Your task to perform on an android device: turn off data saver in the chrome app Image 0: 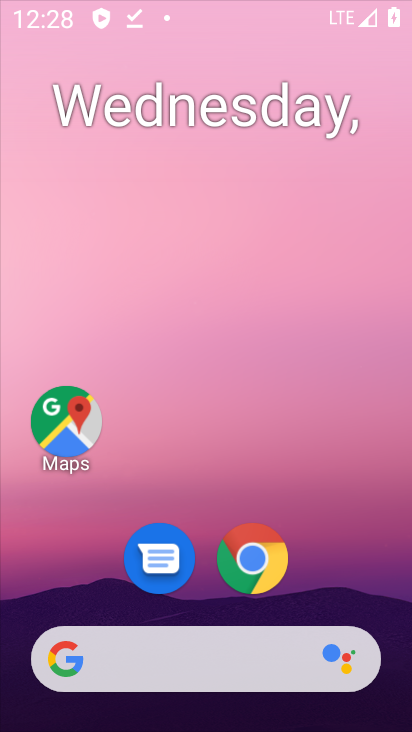
Step 0: drag from (275, 569) to (190, 1)
Your task to perform on an android device: turn off data saver in the chrome app Image 1: 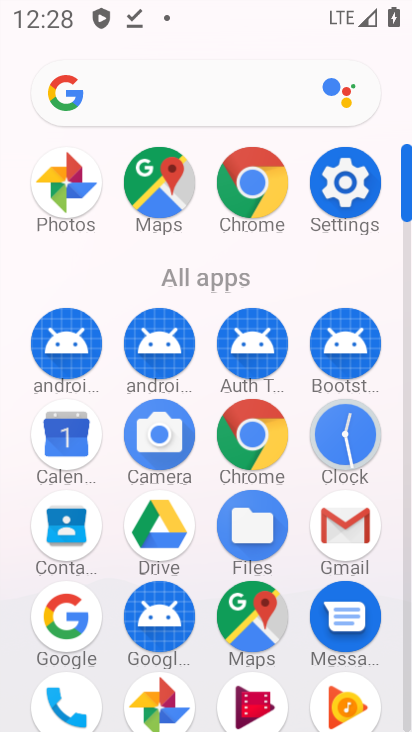
Step 1: click (237, 194)
Your task to perform on an android device: turn off data saver in the chrome app Image 2: 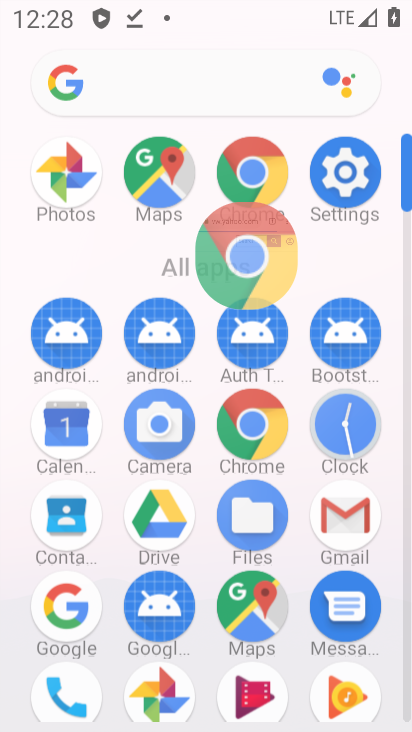
Step 2: click (248, 184)
Your task to perform on an android device: turn off data saver in the chrome app Image 3: 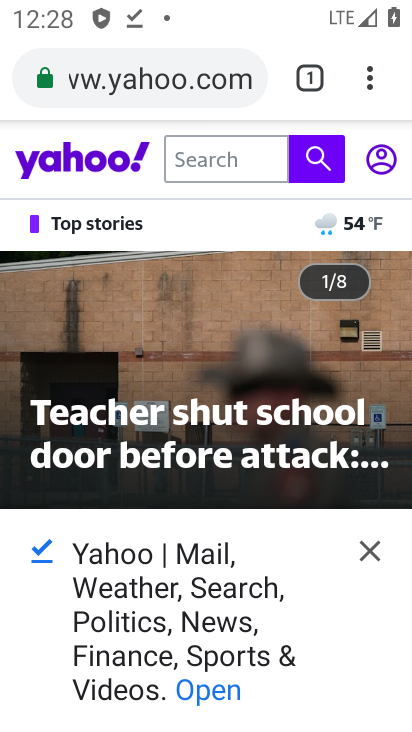
Step 3: press back button
Your task to perform on an android device: turn off data saver in the chrome app Image 4: 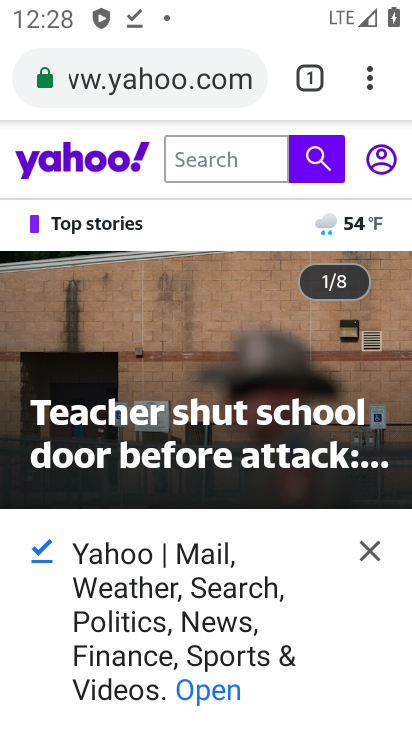
Step 4: press back button
Your task to perform on an android device: turn off data saver in the chrome app Image 5: 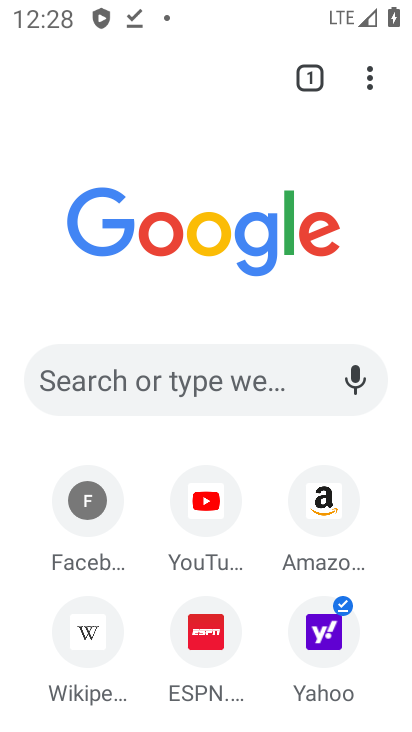
Step 5: press back button
Your task to perform on an android device: turn off data saver in the chrome app Image 6: 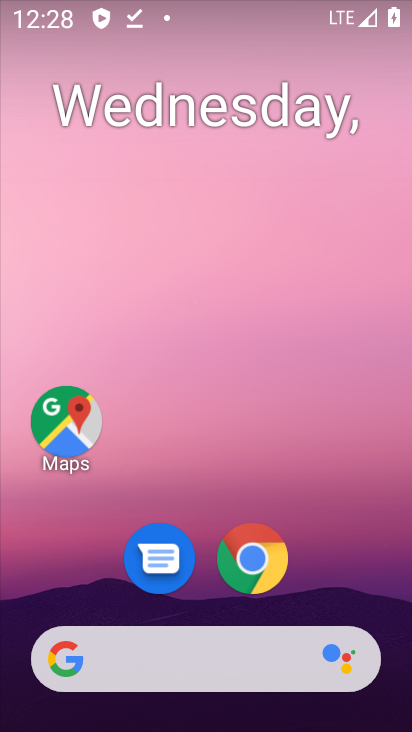
Step 6: drag from (276, 584) to (408, 490)
Your task to perform on an android device: turn off data saver in the chrome app Image 7: 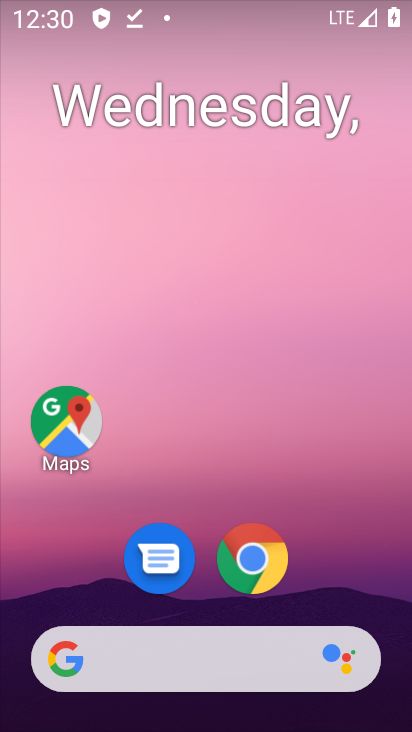
Step 7: click (248, 275)
Your task to perform on an android device: turn off data saver in the chrome app Image 8: 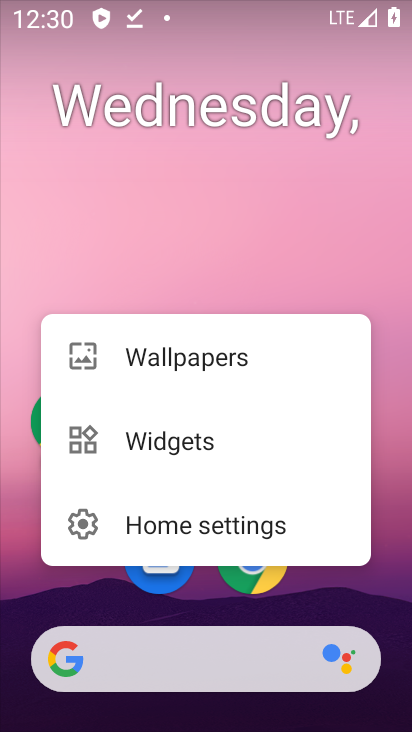
Step 8: drag from (172, 177) to (217, 235)
Your task to perform on an android device: turn off data saver in the chrome app Image 9: 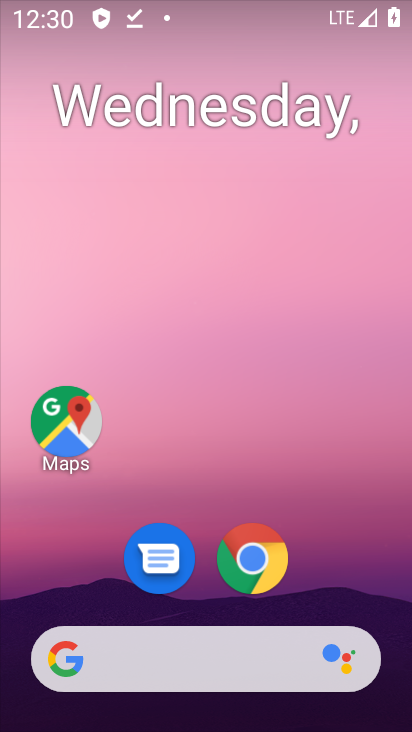
Step 9: click (222, 245)
Your task to perform on an android device: turn off data saver in the chrome app Image 10: 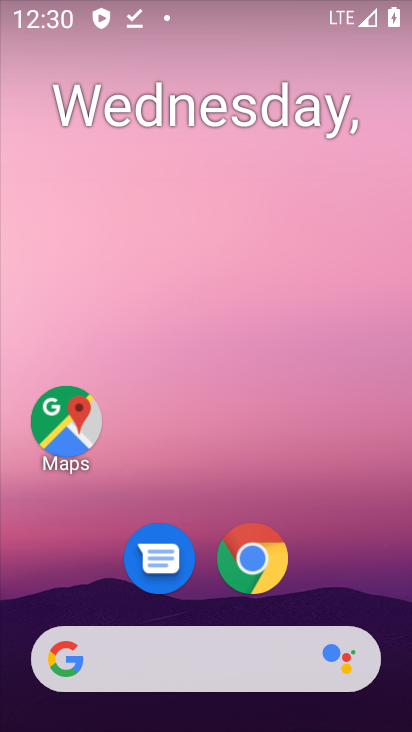
Step 10: drag from (204, 548) to (167, 19)
Your task to perform on an android device: turn off data saver in the chrome app Image 11: 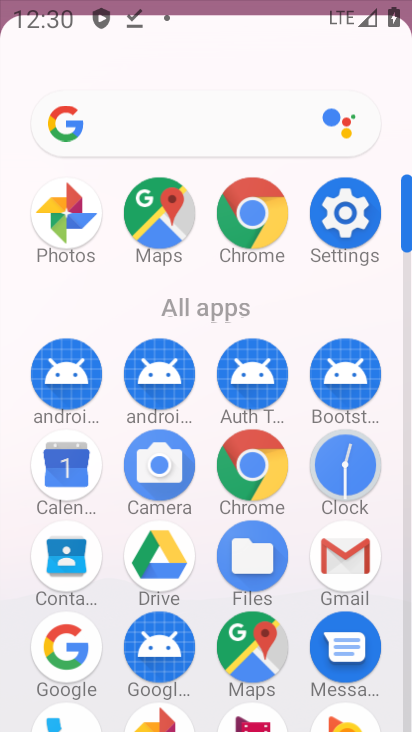
Step 11: drag from (267, 384) to (222, 120)
Your task to perform on an android device: turn off data saver in the chrome app Image 12: 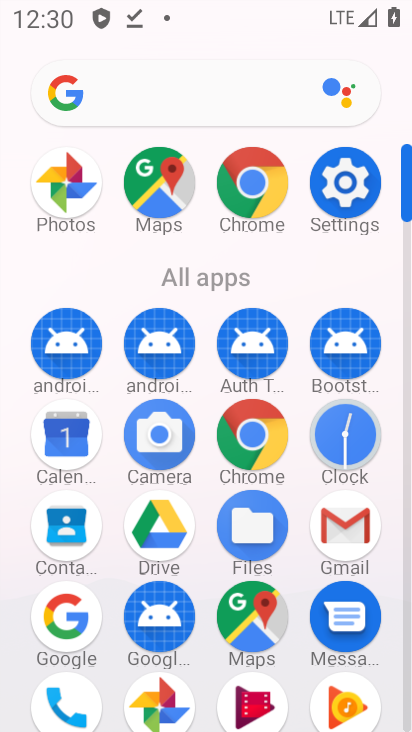
Step 12: click (258, 178)
Your task to perform on an android device: turn off data saver in the chrome app Image 13: 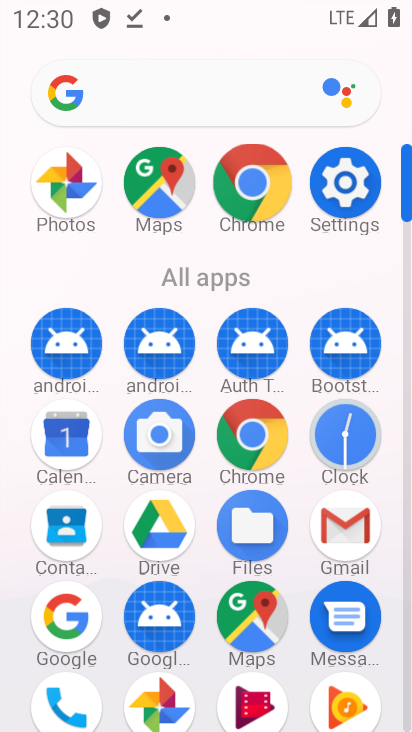
Step 13: click (259, 190)
Your task to perform on an android device: turn off data saver in the chrome app Image 14: 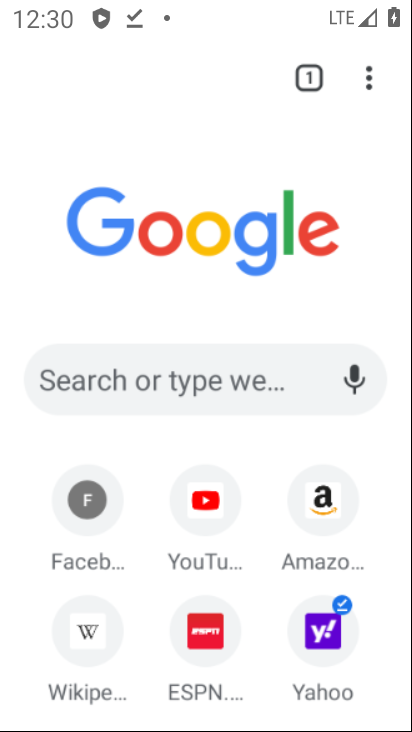
Step 14: click (255, 185)
Your task to perform on an android device: turn off data saver in the chrome app Image 15: 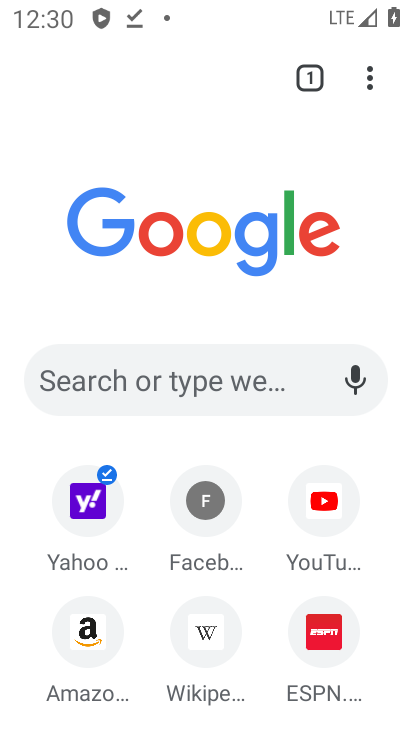
Step 15: drag from (368, 83) to (74, 615)
Your task to perform on an android device: turn off data saver in the chrome app Image 16: 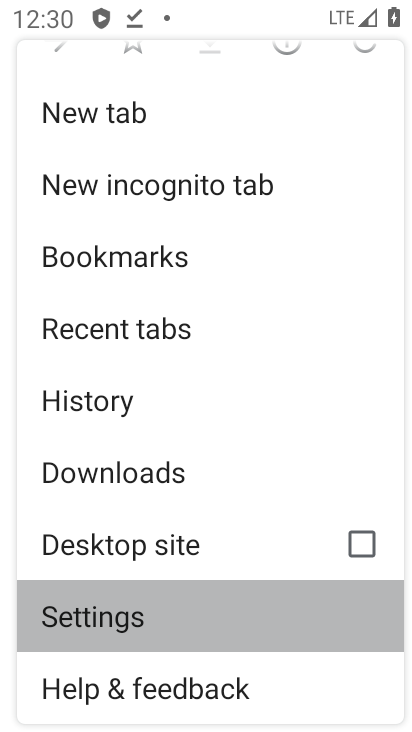
Step 16: click (91, 607)
Your task to perform on an android device: turn off data saver in the chrome app Image 17: 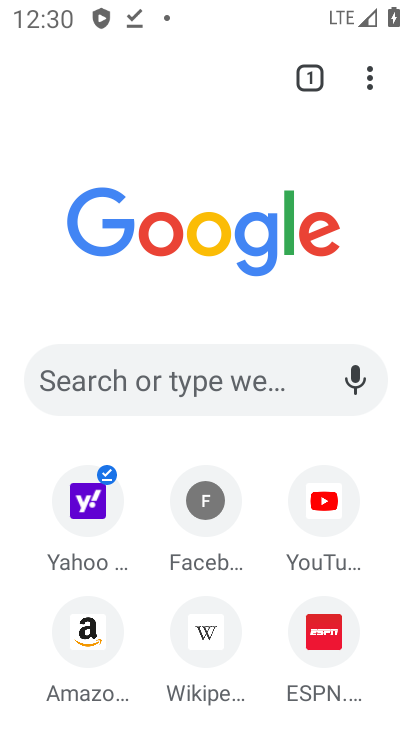
Step 17: click (112, 608)
Your task to perform on an android device: turn off data saver in the chrome app Image 18: 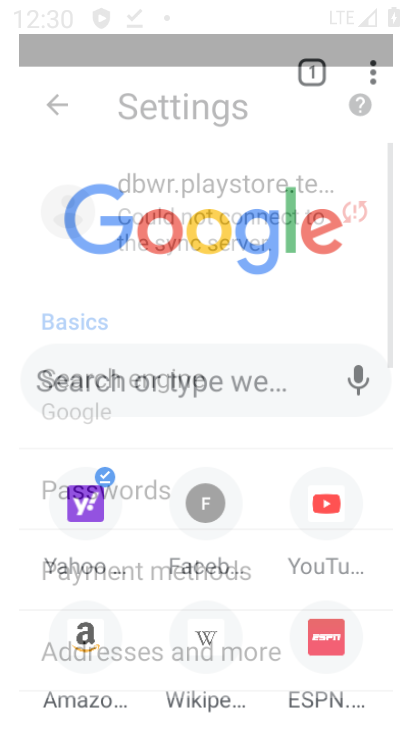
Step 18: click (132, 606)
Your task to perform on an android device: turn off data saver in the chrome app Image 19: 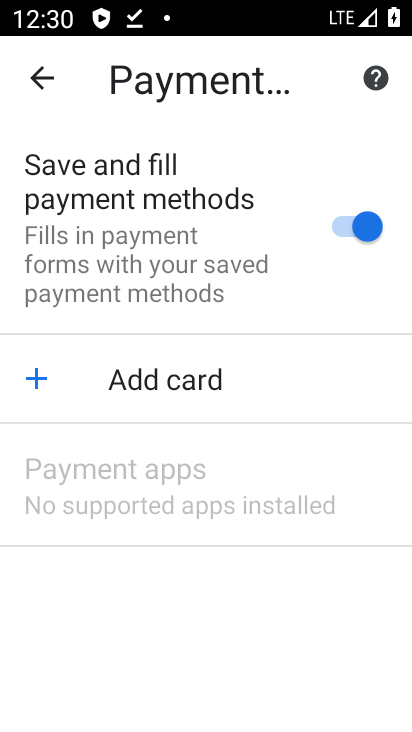
Step 19: click (45, 84)
Your task to perform on an android device: turn off data saver in the chrome app Image 20: 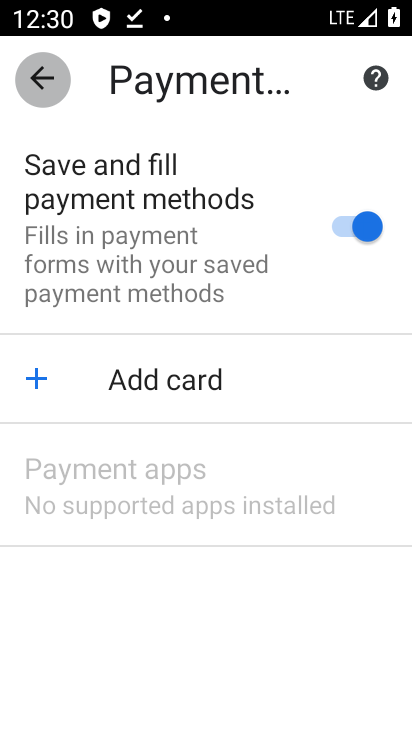
Step 20: click (45, 84)
Your task to perform on an android device: turn off data saver in the chrome app Image 21: 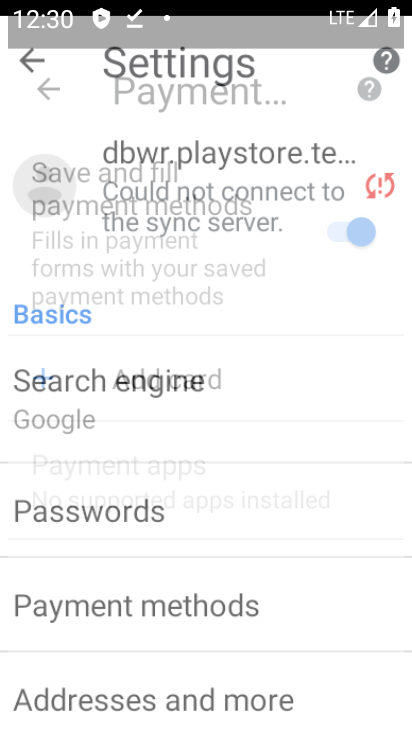
Step 21: click (42, 88)
Your task to perform on an android device: turn off data saver in the chrome app Image 22: 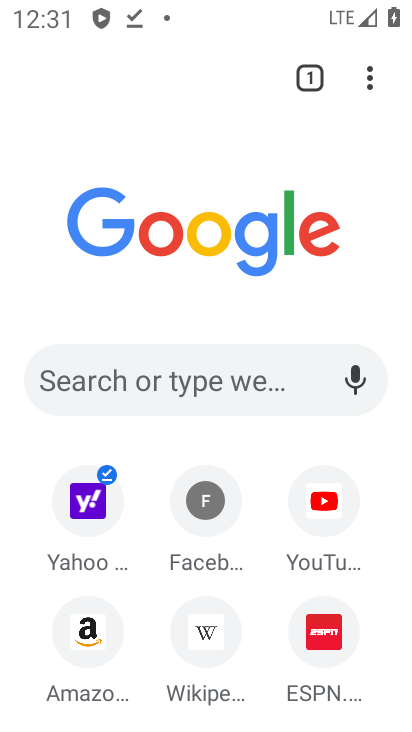
Step 22: press back button
Your task to perform on an android device: turn off data saver in the chrome app Image 23: 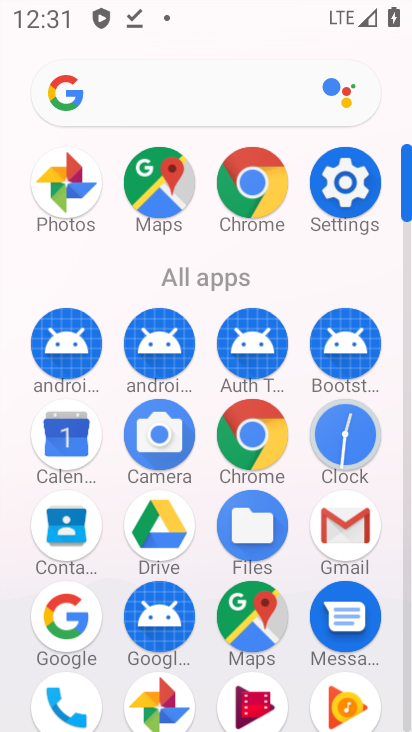
Step 23: drag from (335, 162) to (300, 262)
Your task to perform on an android device: turn off data saver in the chrome app Image 24: 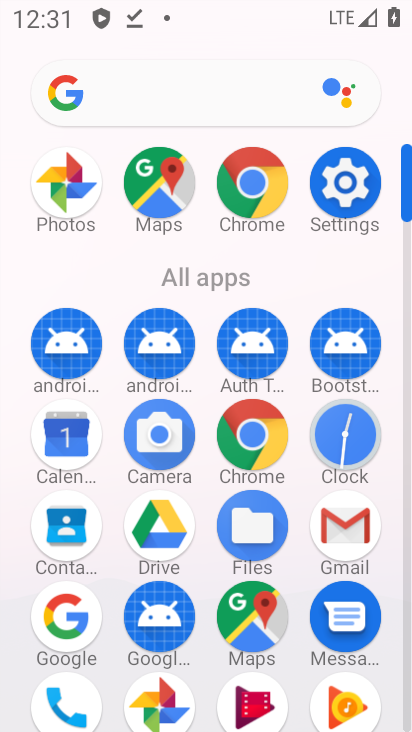
Step 24: press home button
Your task to perform on an android device: turn off data saver in the chrome app Image 25: 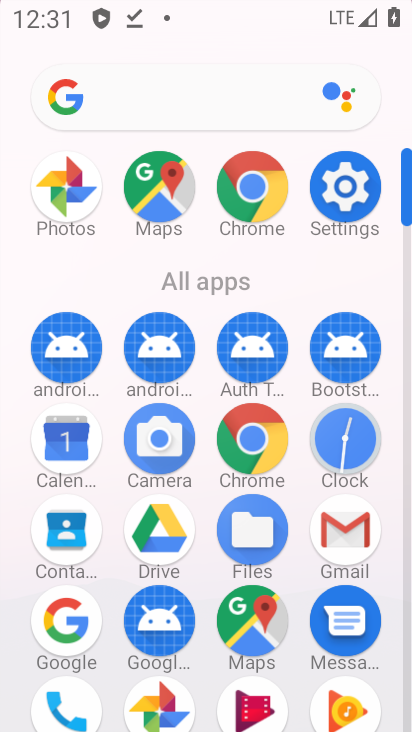
Step 25: press home button
Your task to perform on an android device: turn off data saver in the chrome app Image 26: 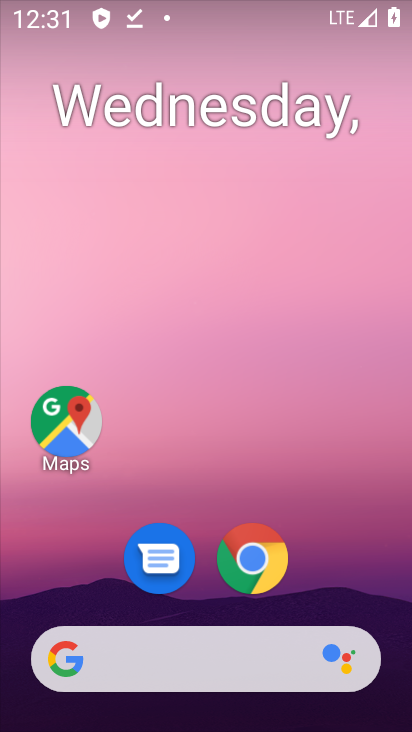
Step 26: press home button
Your task to perform on an android device: turn off data saver in the chrome app Image 27: 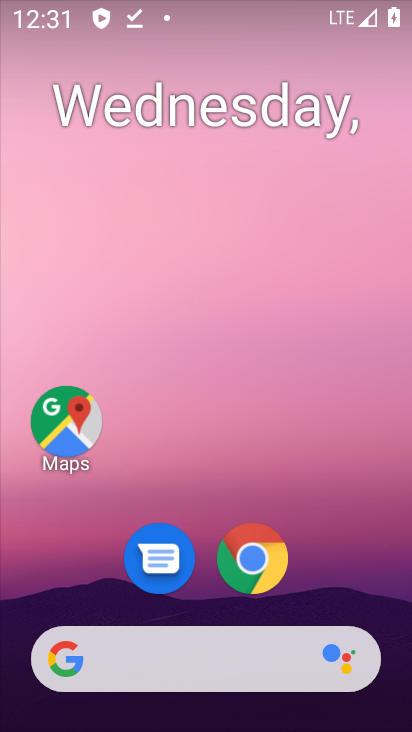
Step 27: drag from (252, 480) to (235, 308)
Your task to perform on an android device: turn off data saver in the chrome app Image 28: 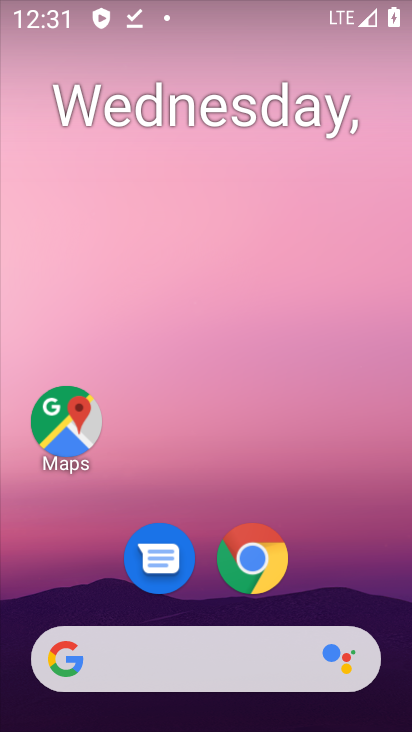
Step 28: drag from (229, 699) to (148, 214)
Your task to perform on an android device: turn off data saver in the chrome app Image 29: 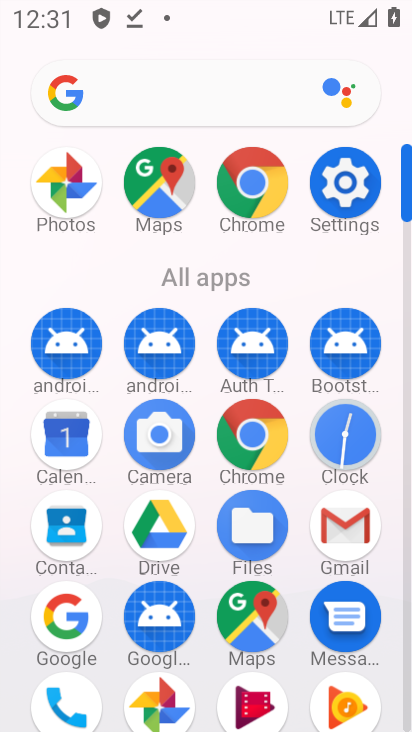
Step 29: click (260, 185)
Your task to perform on an android device: turn off data saver in the chrome app Image 30: 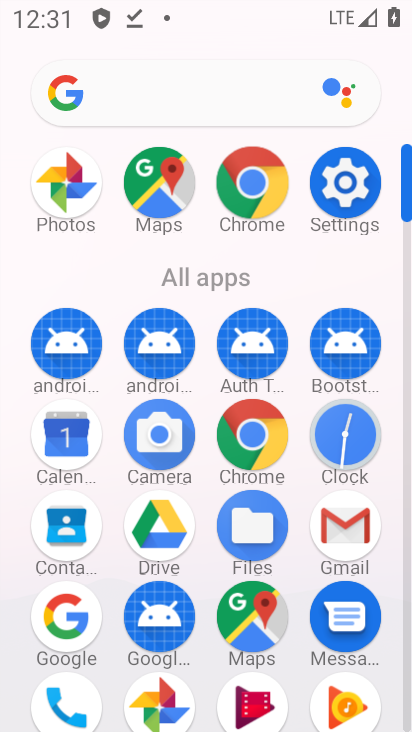
Step 30: click (261, 186)
Your task to perform on an android device: turn off data saver in the chrome app Image 31: 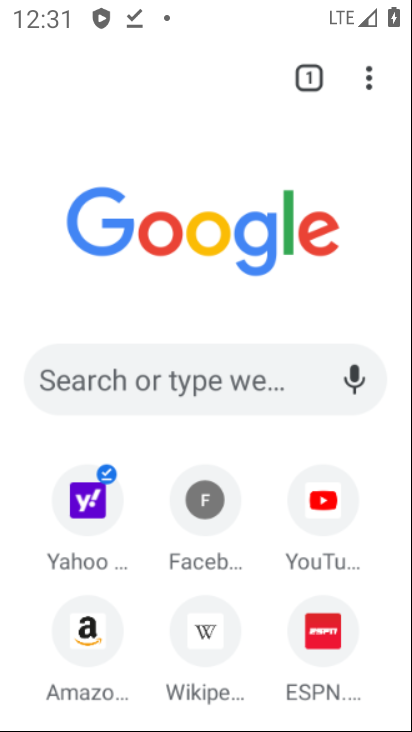
Step 31: click (262, 185)
Your task to perform on an android device: turn off data saver in the chrome app Image 32: 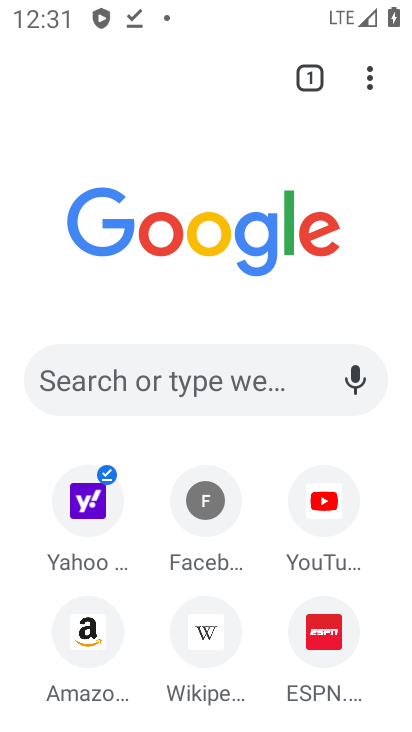
Step 32: drag from (371, 87) to (96, 608)
Your task to perform on an android device: turn off data saver in the chrome app Image 33: 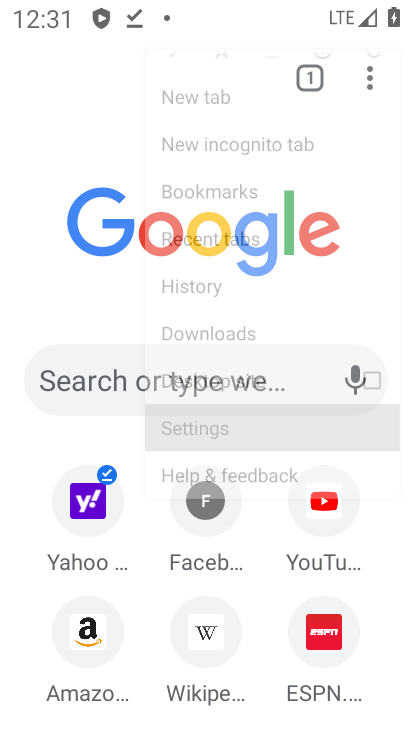
Step 33: click (95, 610)
Your task to perform on an android device: turn off data saver in the chrome app Image 34: 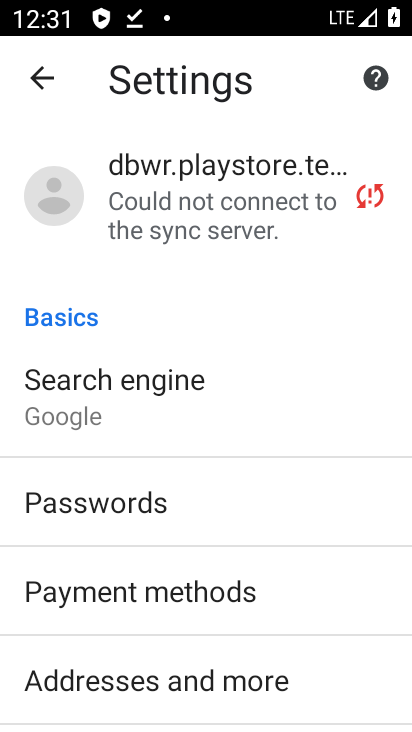
Step 34: drag from (195, 534) to (177, 166)
Your task to perform on an android device: turn off data saver in the chrome app Image 35: 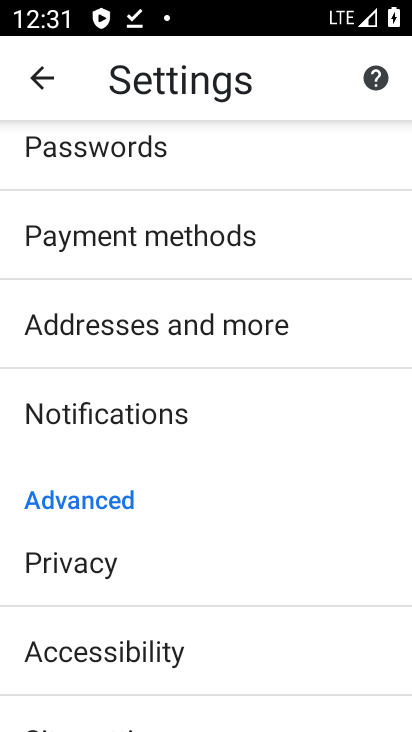
Step 35: drag from (179, 540) to (159, 119)
Your task to perform on an android device: turn off data saver in the chrome app Image 36: 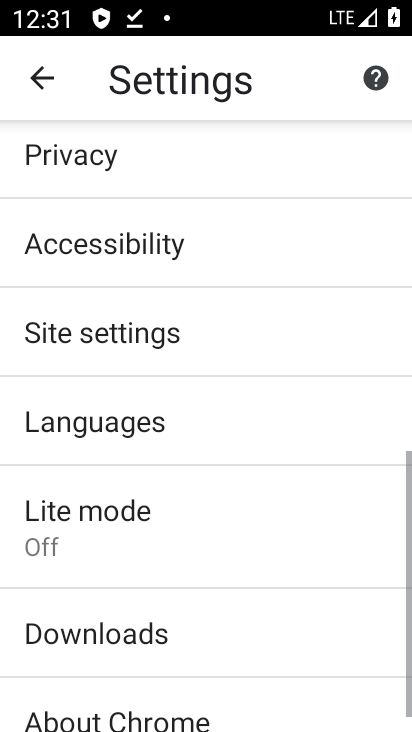
Step 36: drag from (239, 462) to (257, 160)
Your task to perform on an android device: turn off data saver in the chrome app Image 37: 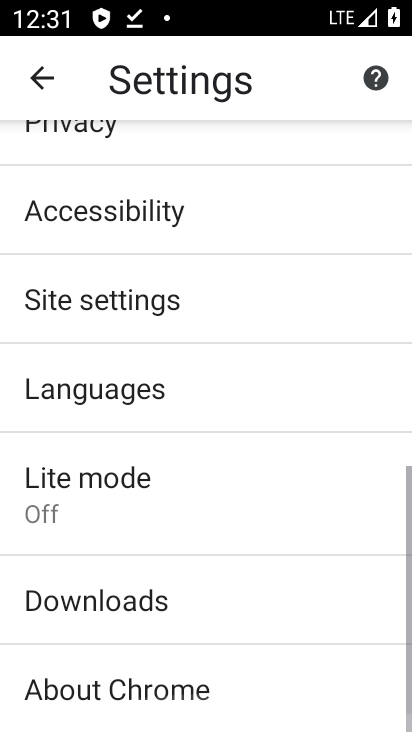
Step 37: click (165, 471)
Your task to perform on an android device: turn off data saver in the chrome app Image 38: 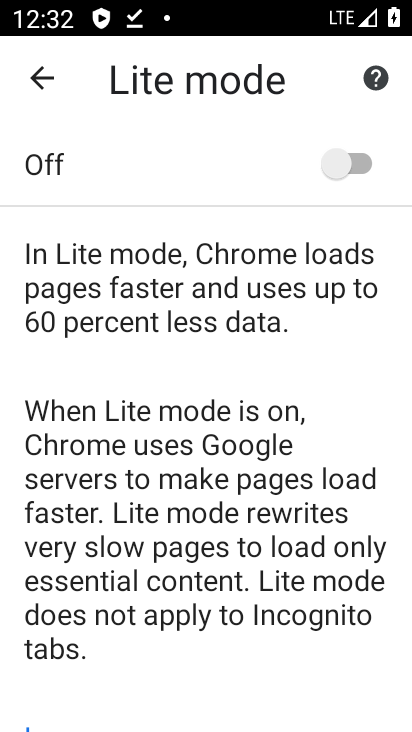
Step 38: click (22, 73)
Your task to perform on an android device: turn off data saver in the chrome app Image 39: 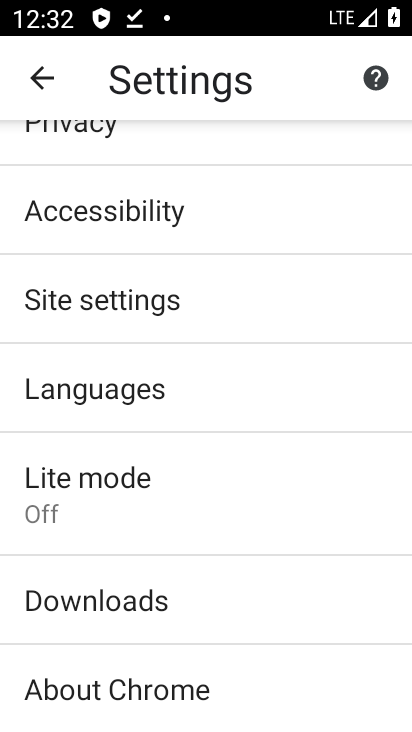
Step 39: click (91, 477)
Your task to perform on an android device: turn off data saver in the chrome app Image 40: 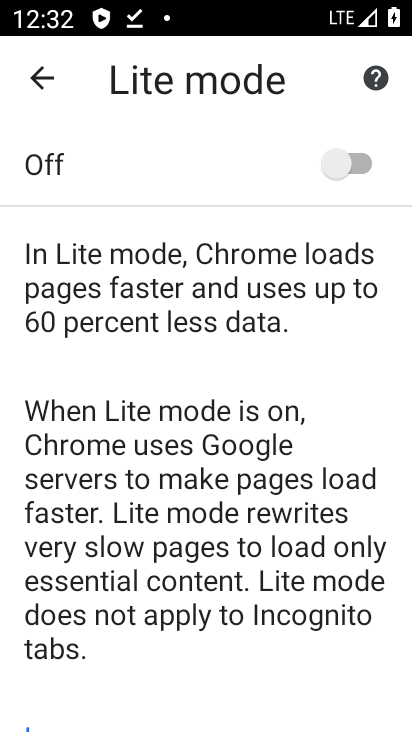
Step 40: task complete